Your task to perform on an android device: Go to Wikipedia Image 0: 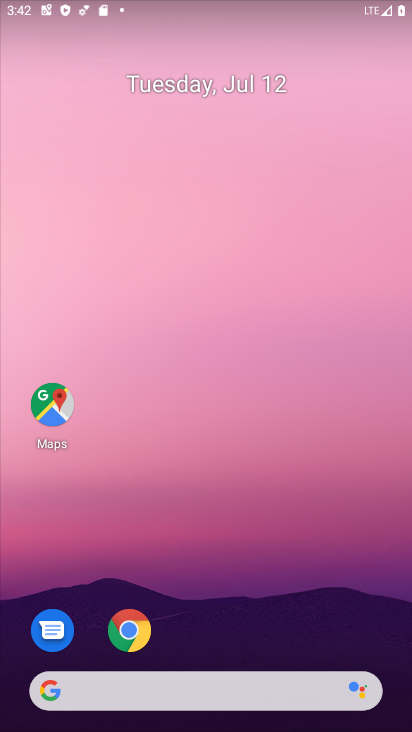
Step 0: drag from (264, 686) to (380, 399)
Your task to perform on an android device: Go to Wikipedia Image 1: 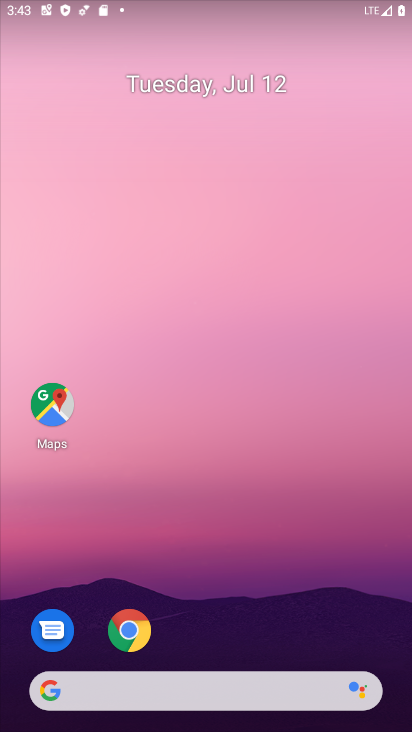
Step 1: click (115, 334)
Your task to perform on an android device: Go to Wikipedia Image 2: 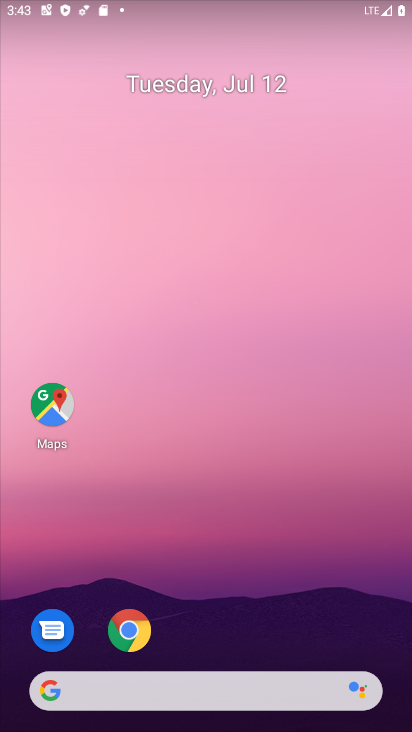
Step 2: drag from (205, 637) to (293, 10)
Your task to perform on an android device: Go to Wikipedia Image 3: 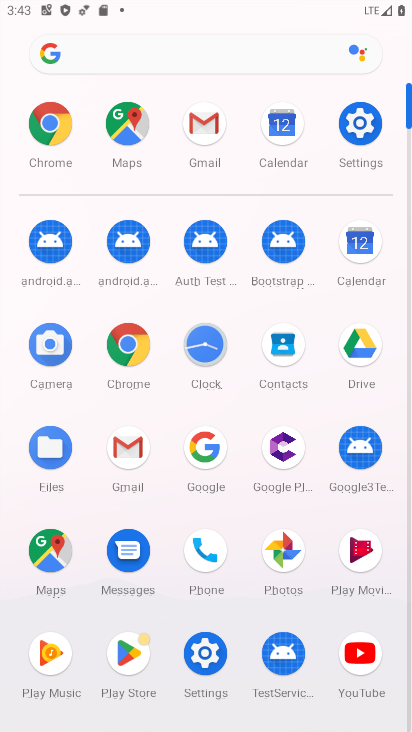
Step 3: click (124, 358)
Your task to perform on an android device: Go to Wikipedia Image 4: 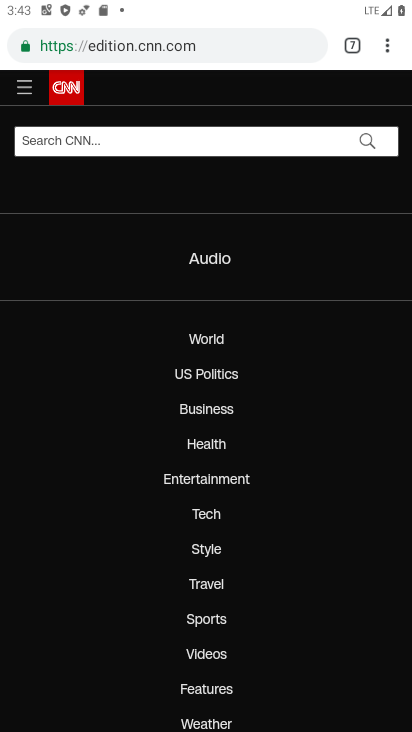
Step 4: drag from (382, 43) to (366, 80)
Your task to perform on an android device: Go to Wikipedia Image 5: 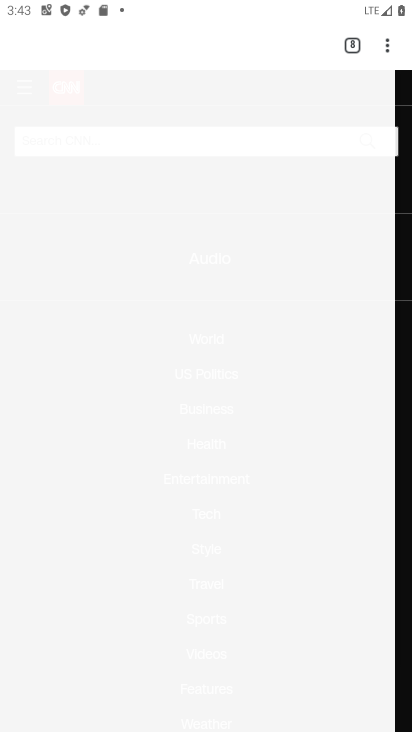
Step 5: click (285, 77)
Your task to perform on an android device: Go to Wikipedia Image 6: 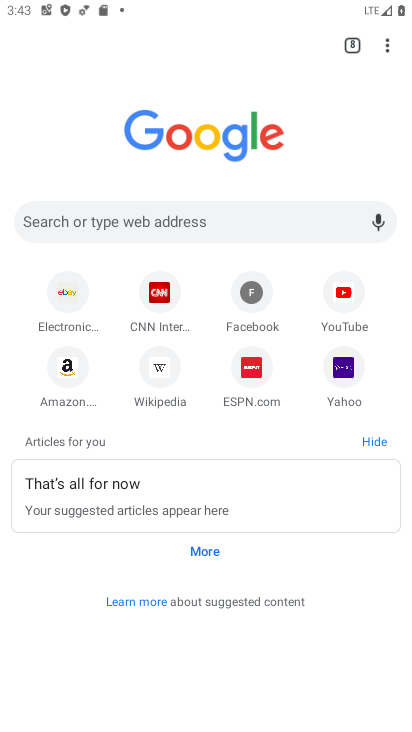
Step 6: click (160, 375)
Your task to perform on an android device: Go to Wikipedia Image 7: 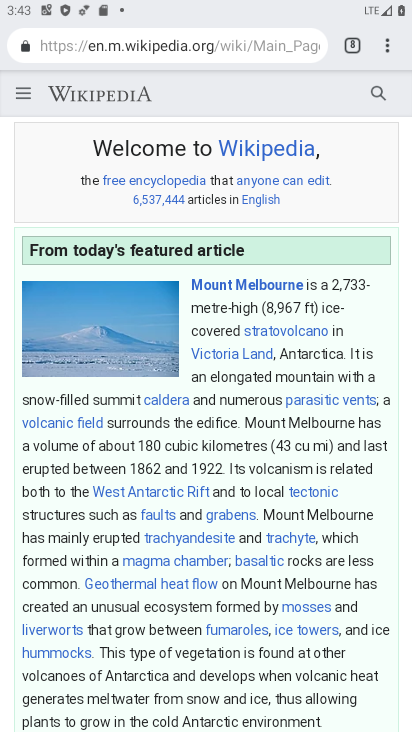
Step 7: task complete